Your task to perform on an android device: Show me popular games on the Play Store Image 0: 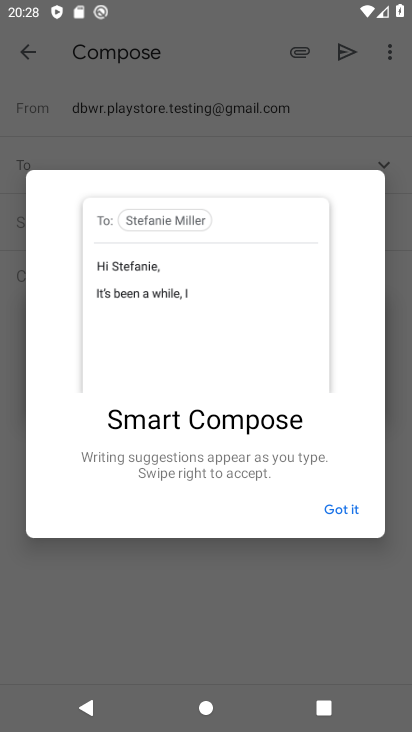
Step 0: press home button
Your task to perform on an android device: Show me popular games on the Play Store Image 1: 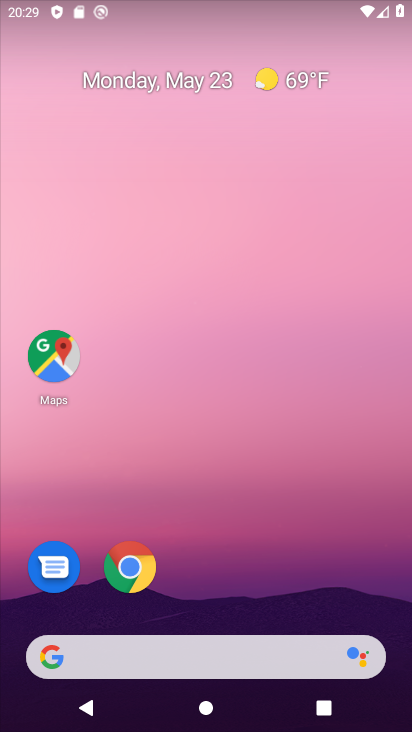
Step 1: drag from (221, 618) to (281, 73)
Your task to perform on an android device: Show me popular games on the Play Store Image 2: 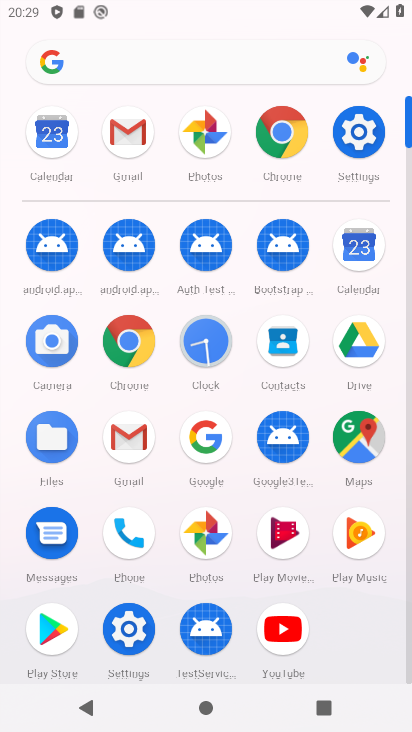
Step 2: click (65, 635)
Your task to perform on an android device: Show me popular games on the Play Store Image 3: 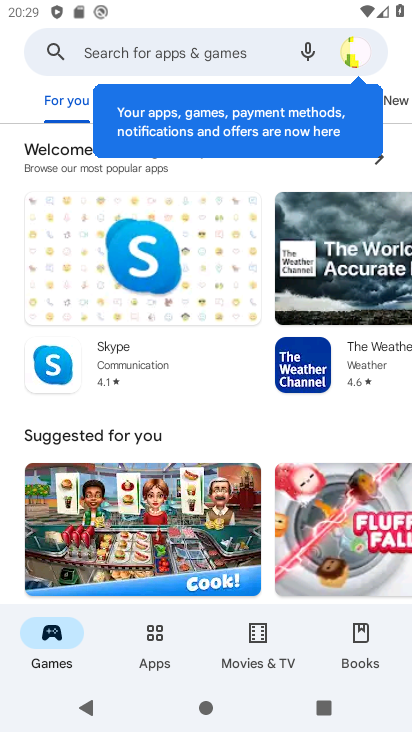
Step 3: drag from (54, 105) to (3, 108)
Your task to perform on an android device: Show me popular games on the Play Store Image 4: 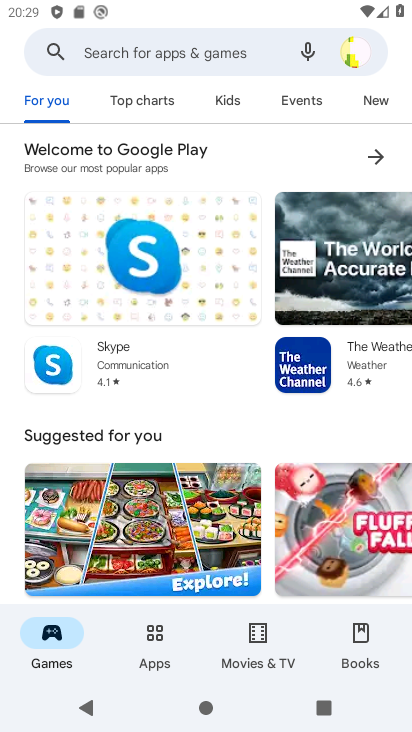
Step 4: click (152, 106)
Your task to perform on an android device: Show me popular games on the Play Store Image 5: 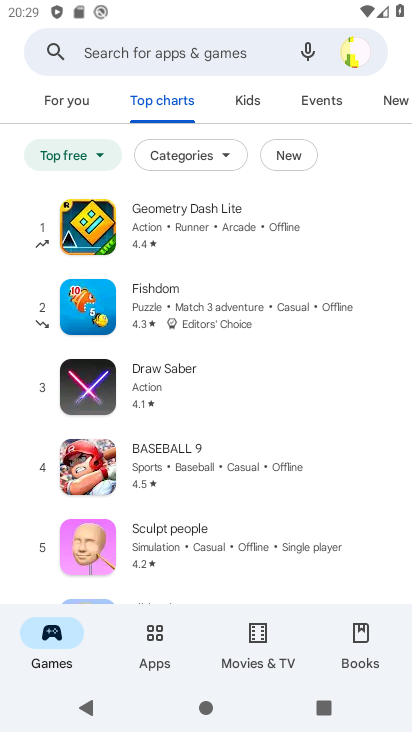
Step 5: task complete